Your task to perform on an android device: star an email in the gmail app Image 0: 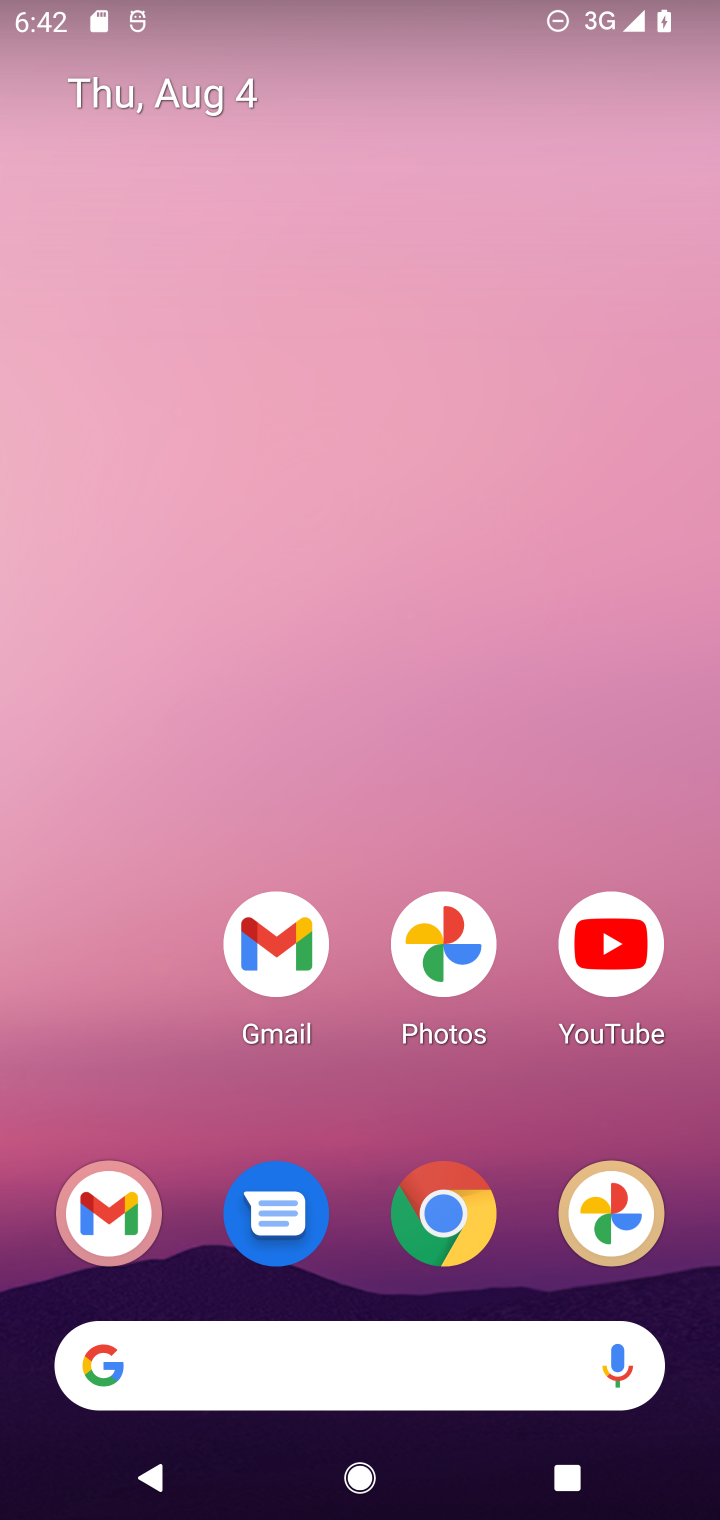
Step 0: press home button
Your task to perform on an android device: star an email in the gmail app Image 1: 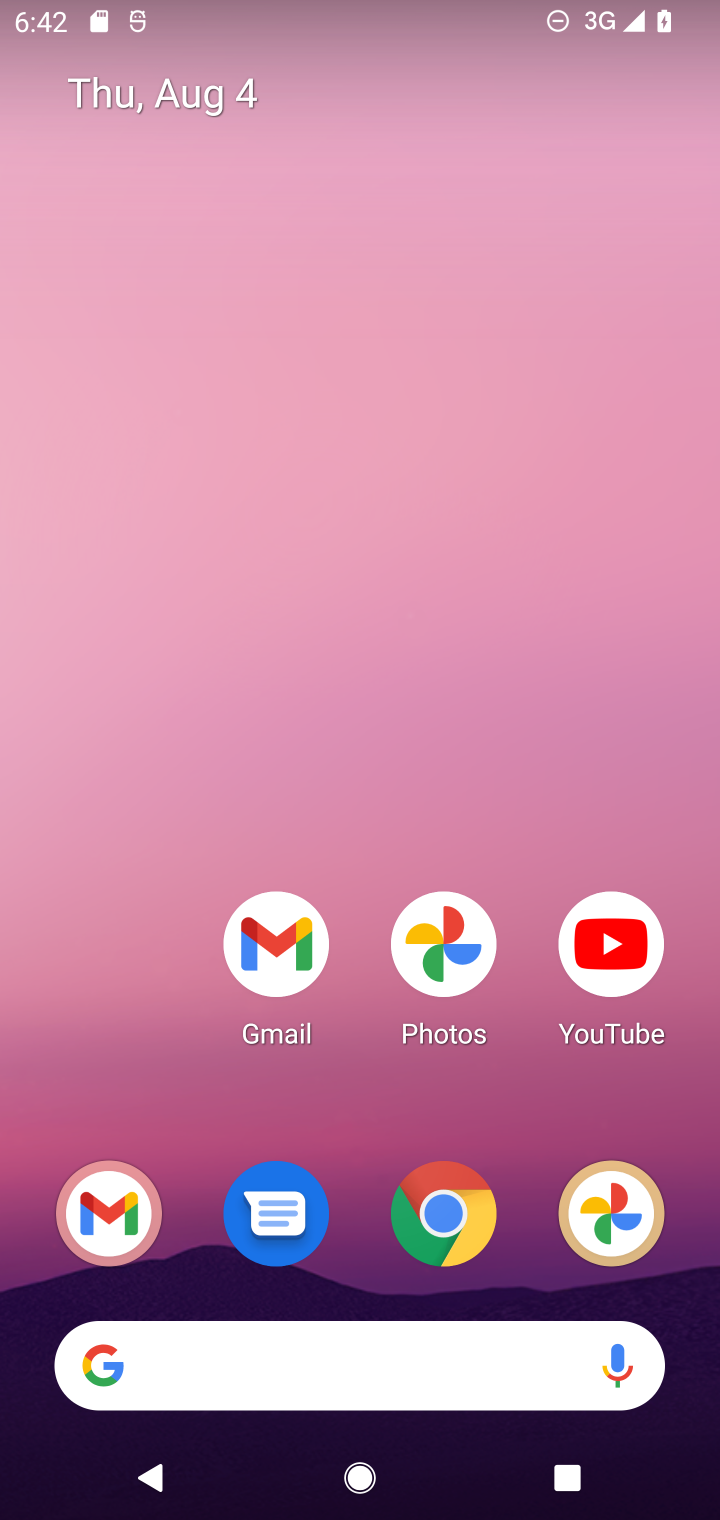
Step 1: drag from (132, 1020) to (95, 171)
Your task to perform on an android device: star an email in the gmail app Image 2: 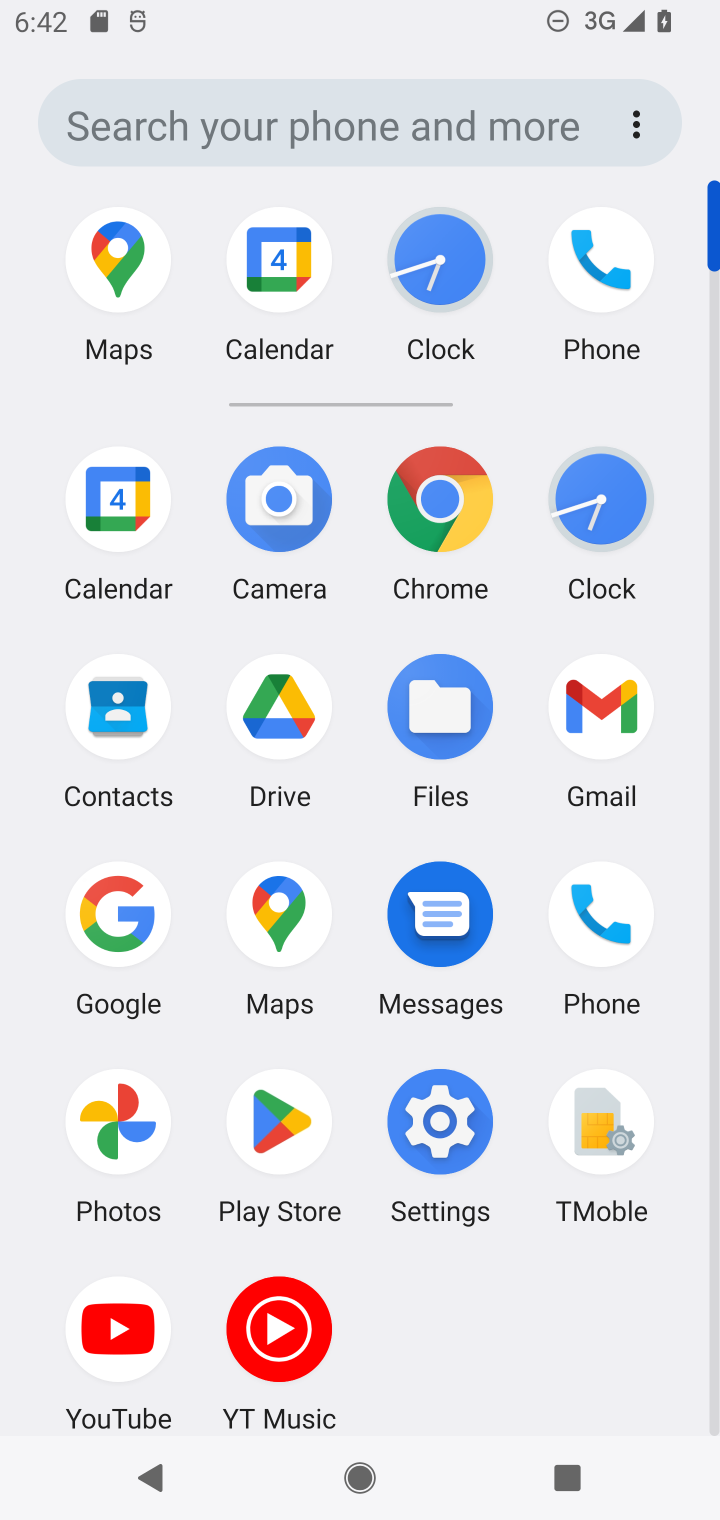
Step 2: click (592, 680)
Your task to perform on an android device: star an email in the gmail app Image 3: 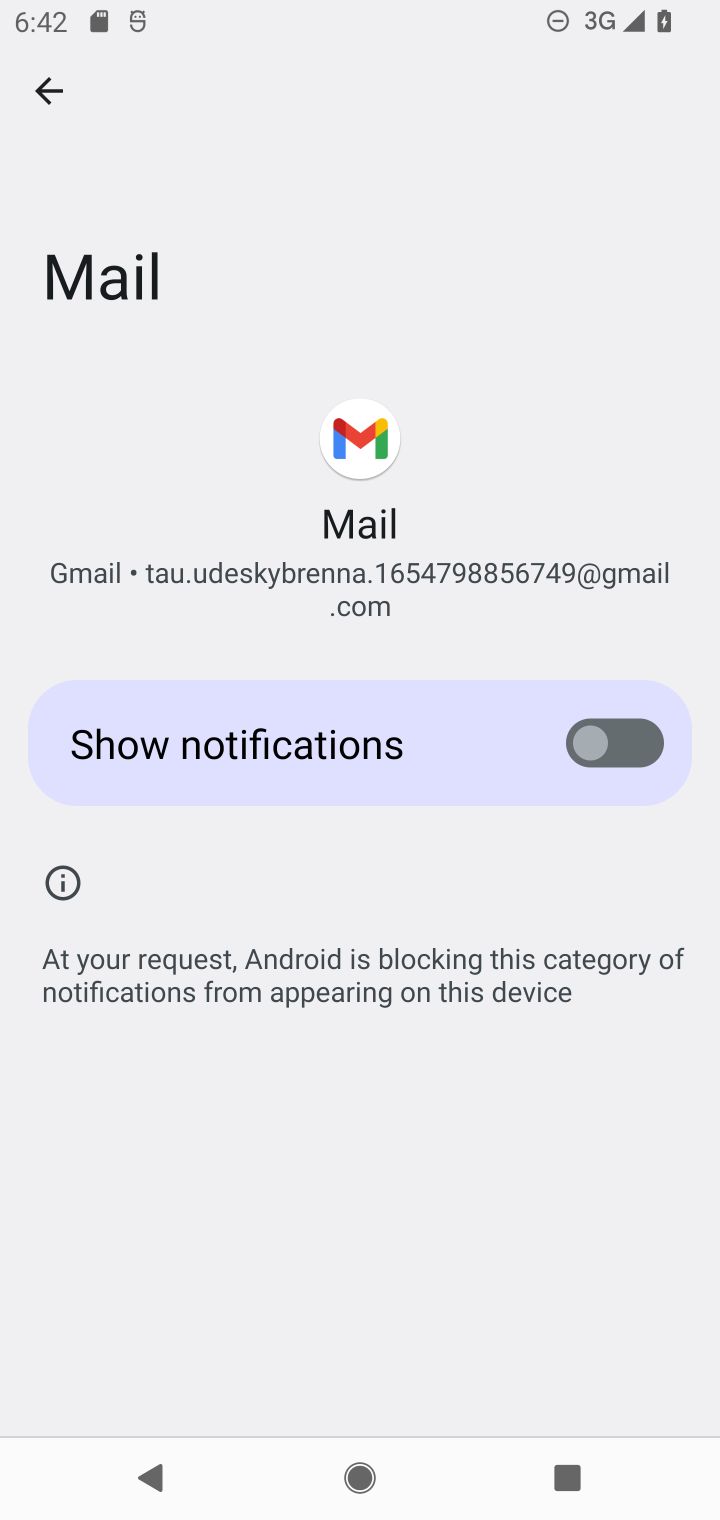
Step 3: press back button
Your task to perform on an android device: star an email in the gmail app Image 4: 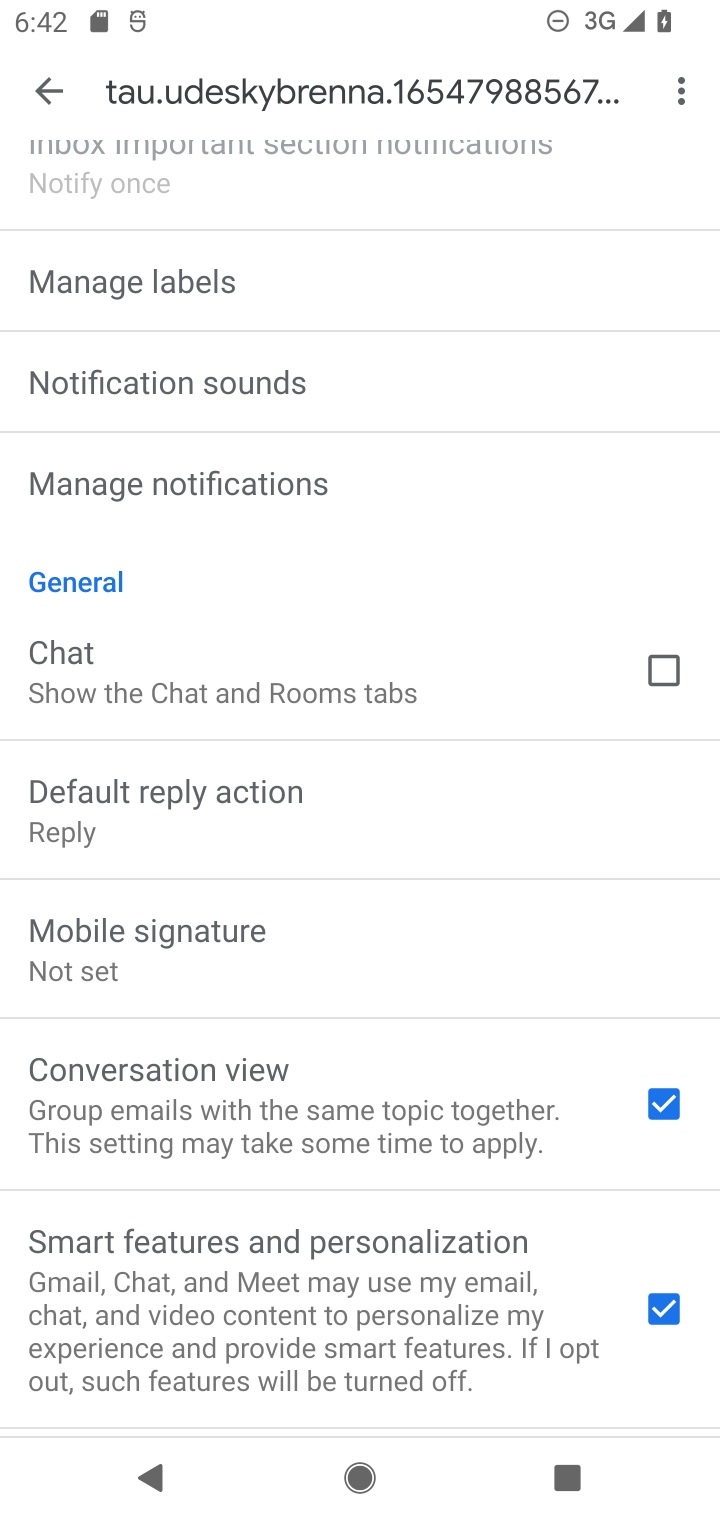
Step 4: press back button
Your task to perform on an android device: star an email in the gmail app Image 5: 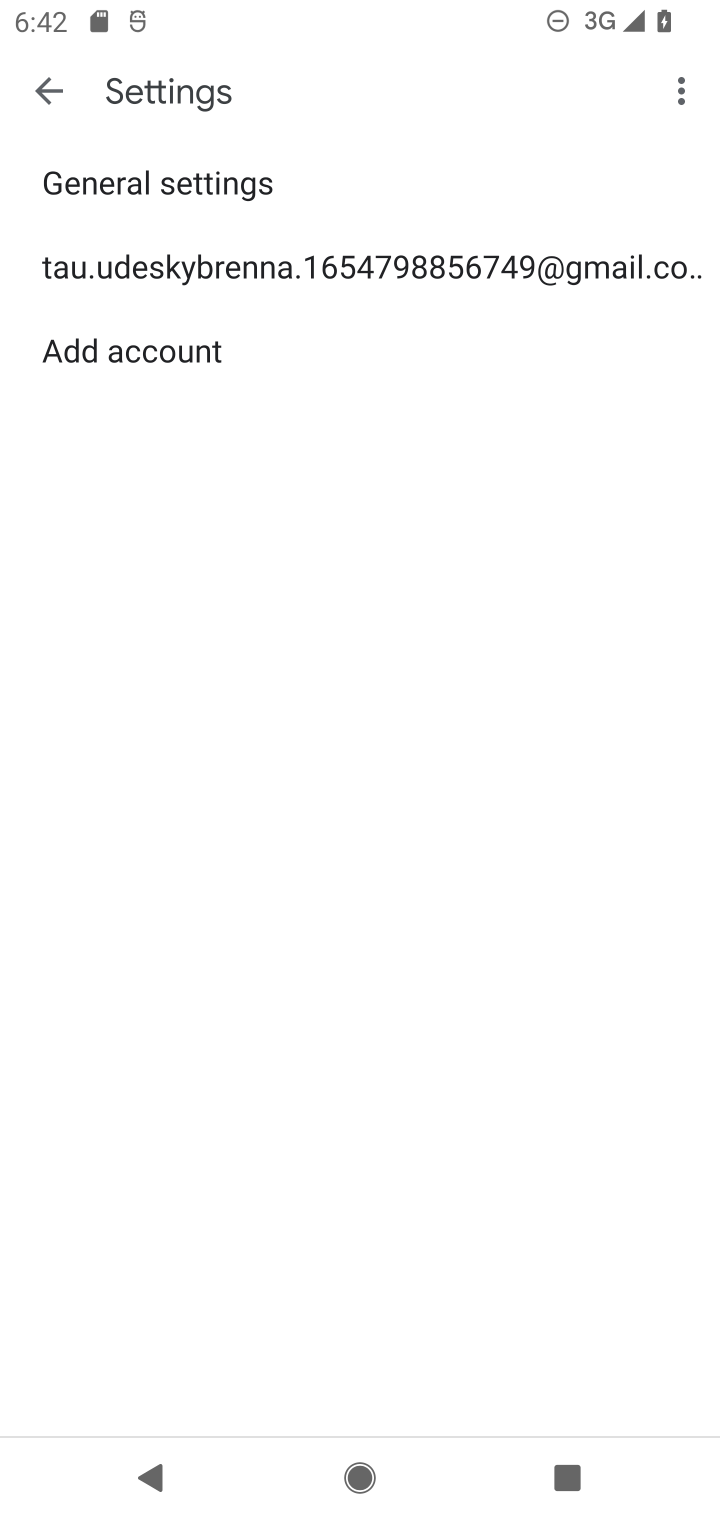
Step 5: press back button
Your task to perform on an android device: star an email in the gmail app Image 6: 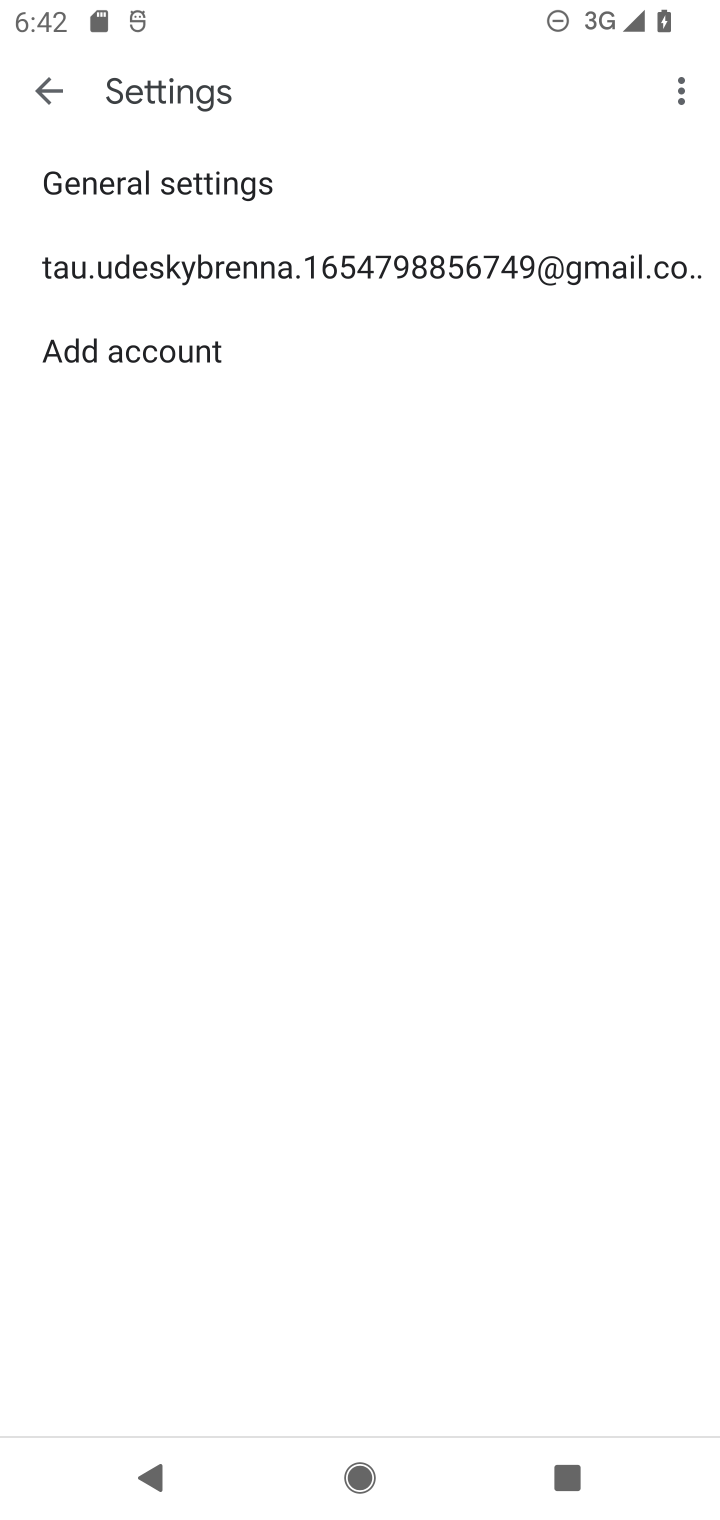
Step 6: press back button
Your task to perform on an android device: star an email in the gmail app Image 7: 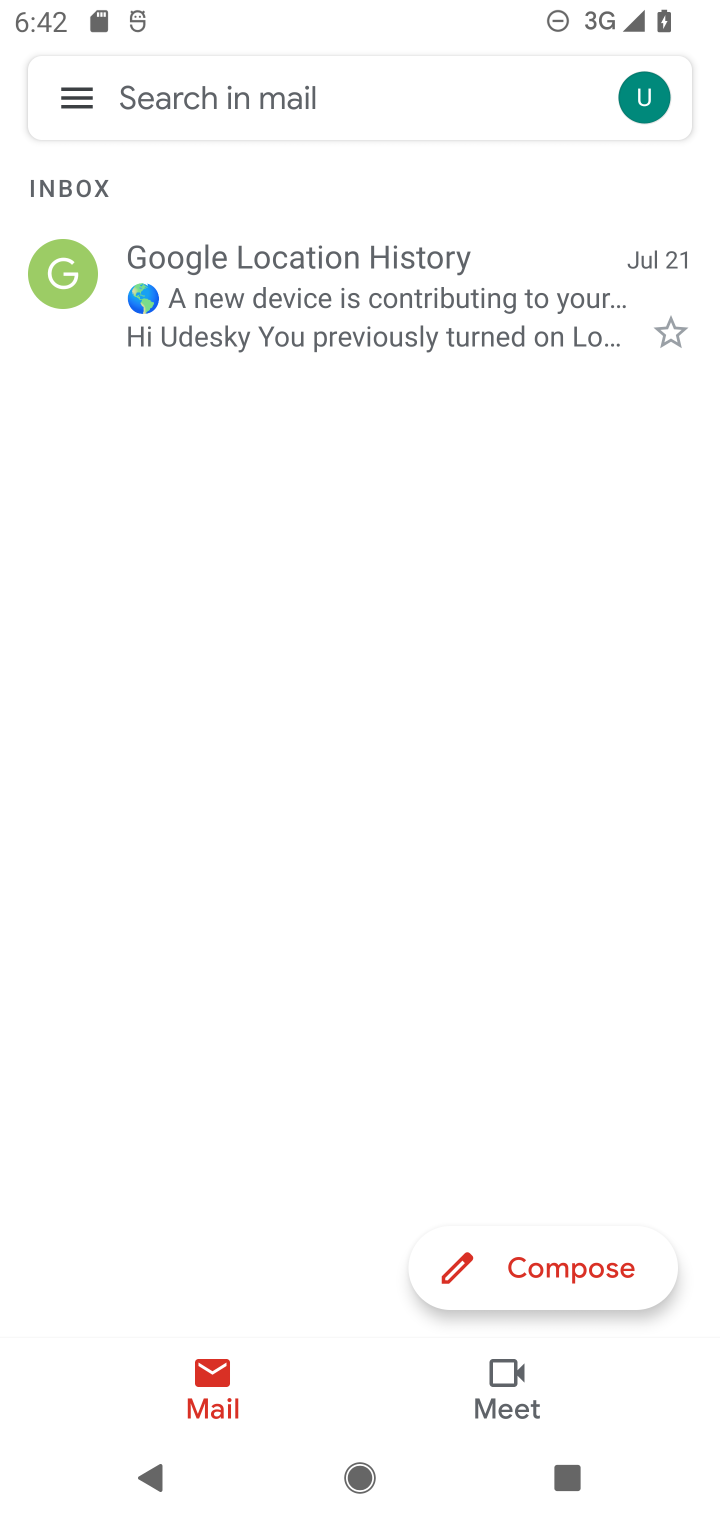
Step 7: click (70, 100)
Your task to perform on an android device: star an email in the gmail app Image 8: 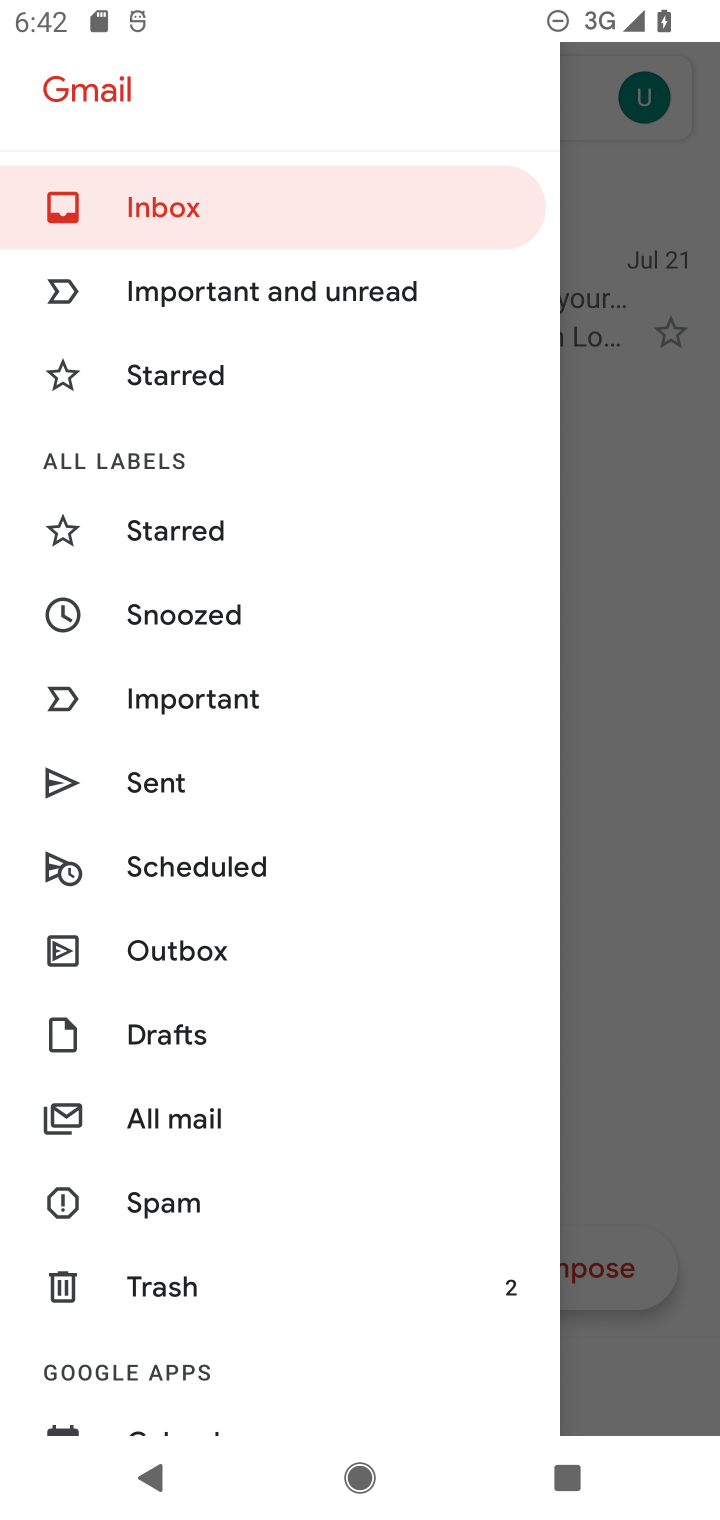
Step 8: drag from (409, 1086) to (409, 705)
Your task to perform on an android device: star an email in the gmail app Image 9: 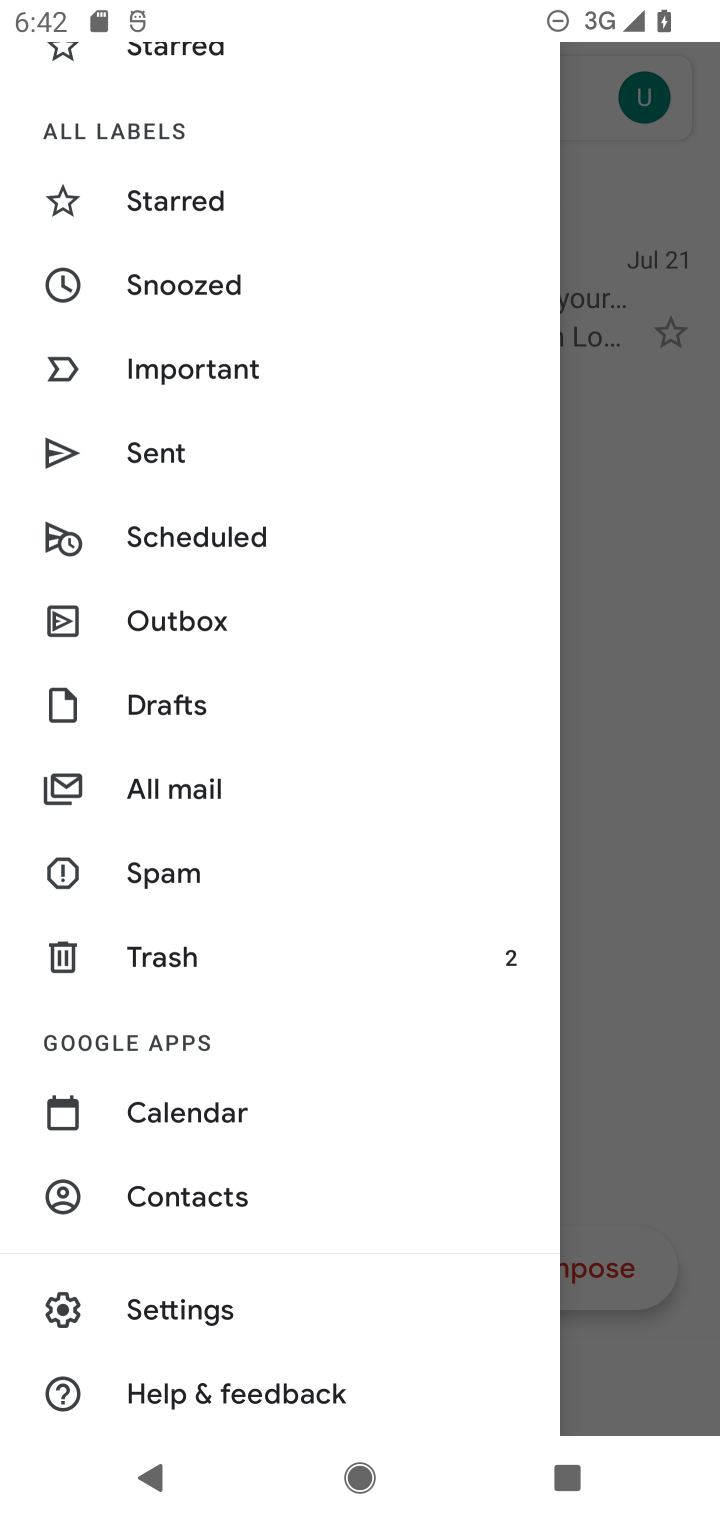
Step 9: drag from (383, 423) to (379, 839)
Your task to perform on an android device: star an email in the gmail app Image 10: 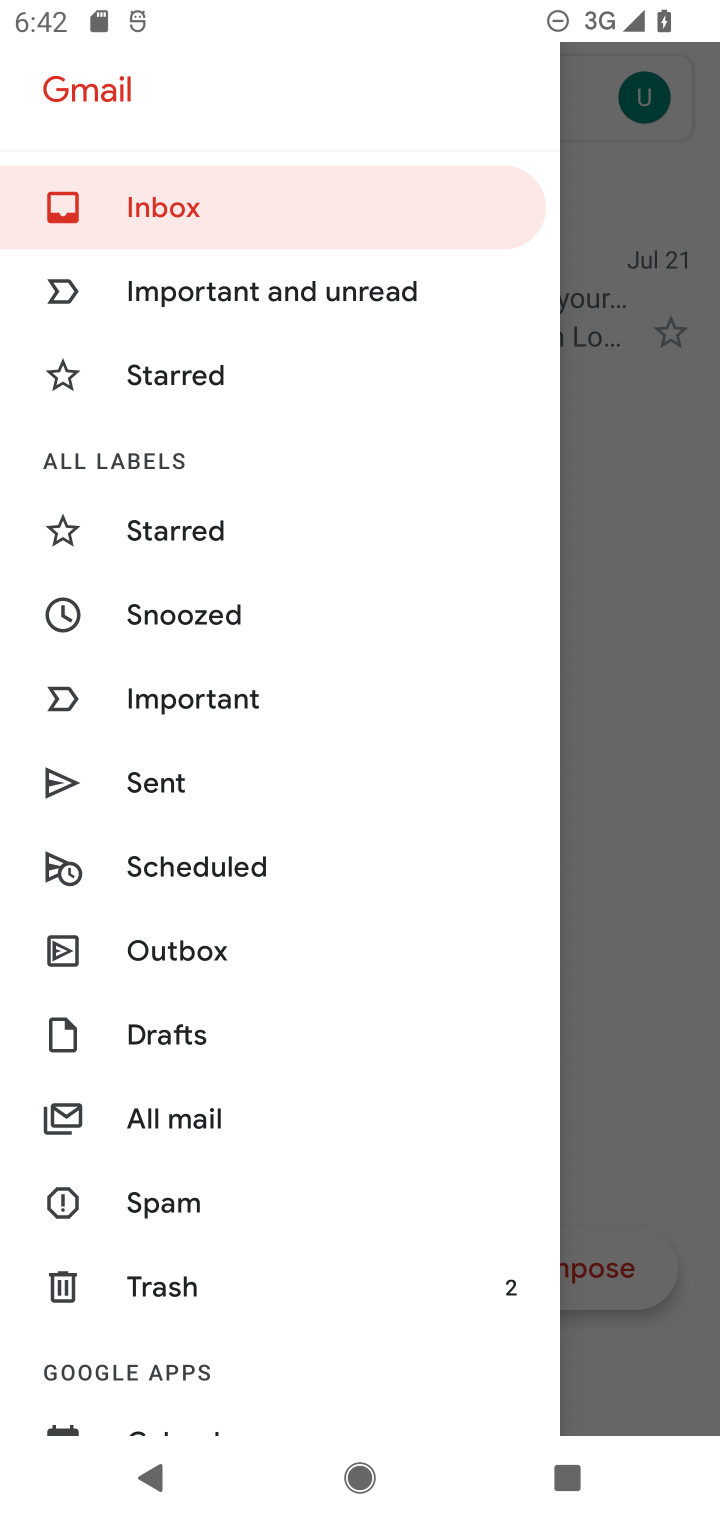
Step 10: click (237, 1118)
Your task to perform on an android device: star an email in the gmail app Image 11: 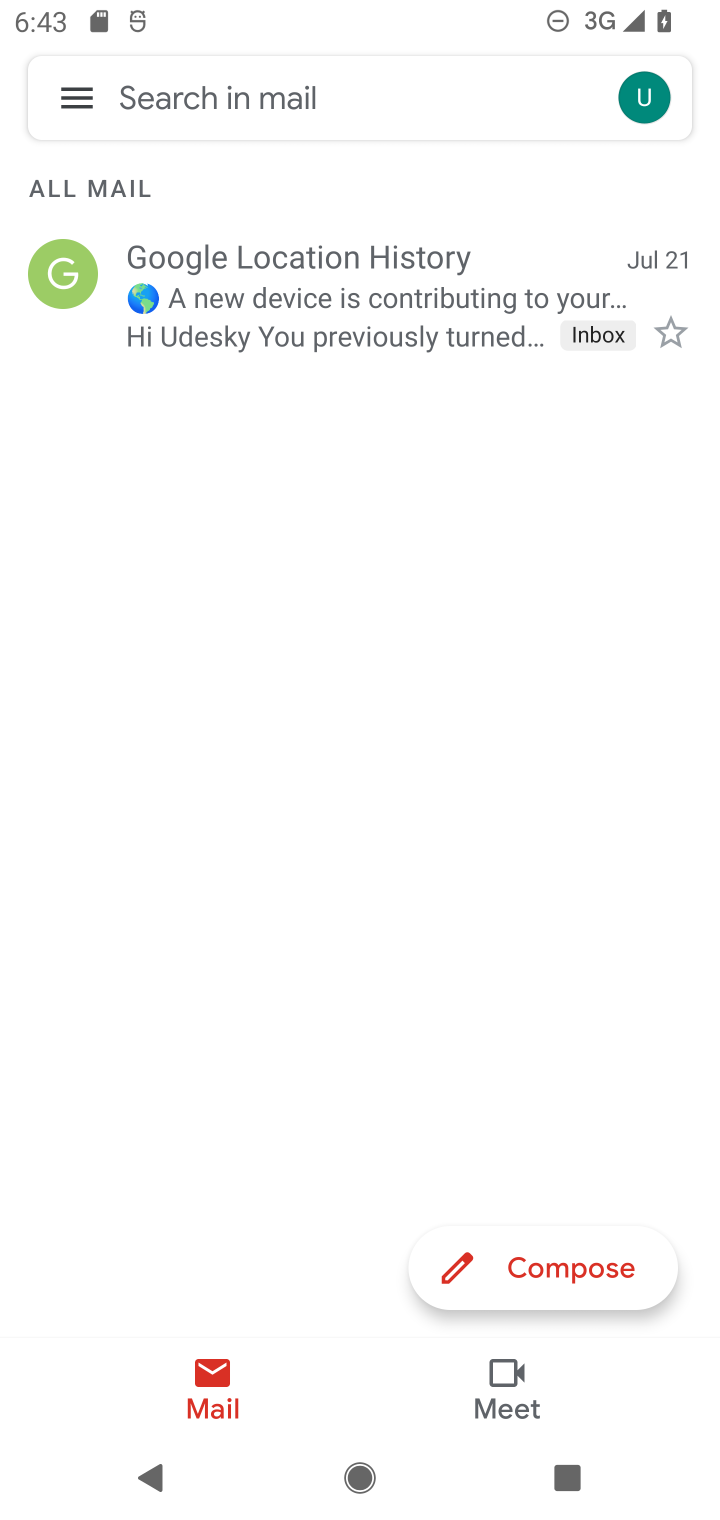
Step 11: click (666, 322)
Your task to perform on an android device: star an email in the gmail app Image 12: 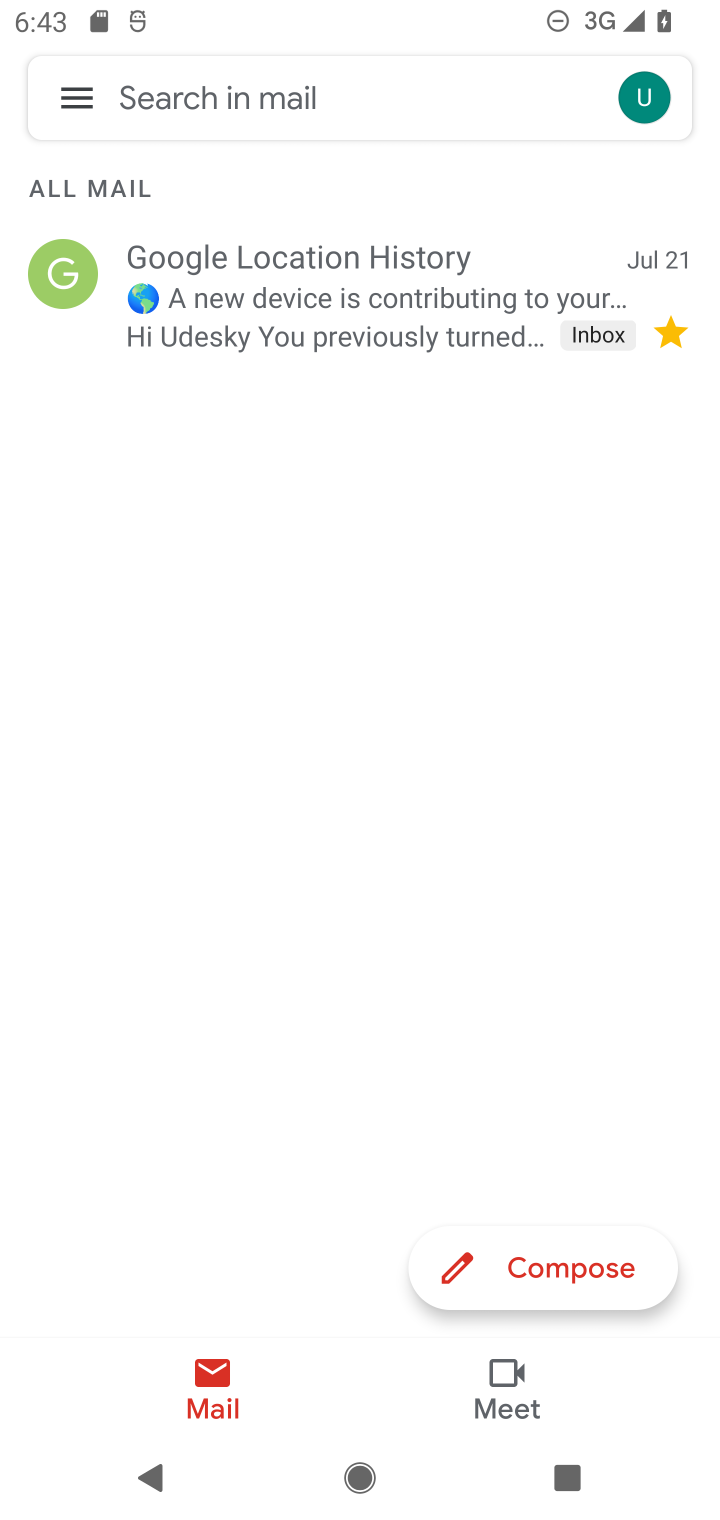
Step 12: task complete